Your task to perform on an android device: Go to Reddit.com Image 0: 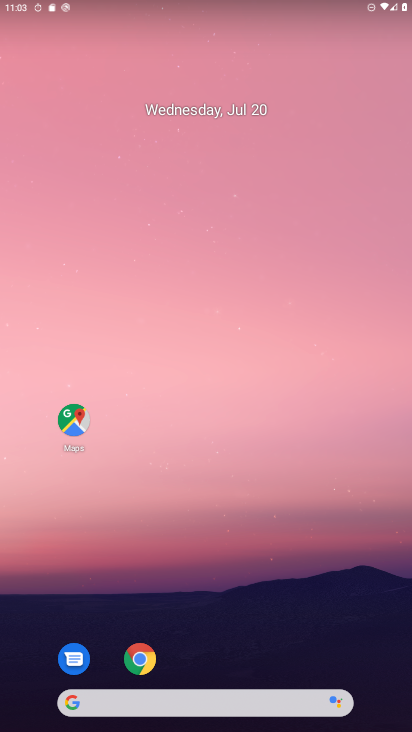
Step 0: drag from (304, 604) to (328, 132)
Your task to perform on an android device: Go to Reddit.com Image 1: 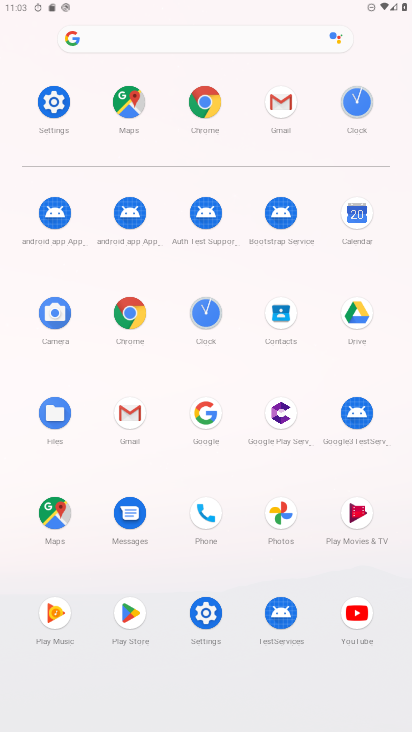
Step 1: click (204, 101)
Your task to perform on an android device: Go to Reddit.com Image 2: 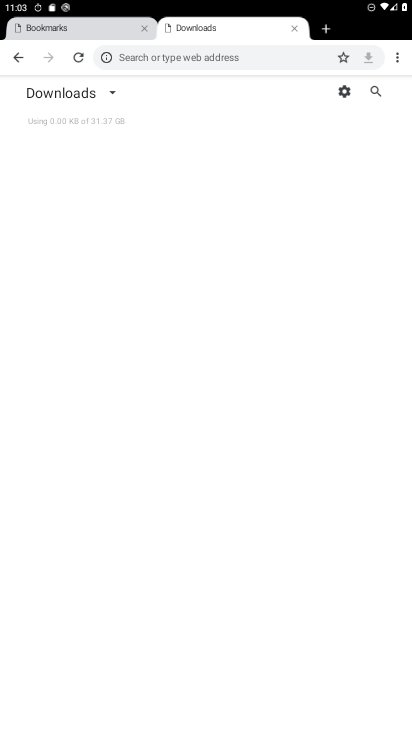
Step 2: click (252, 61)
Your task to perform on an android device: Go to Reddit.com Image 3: 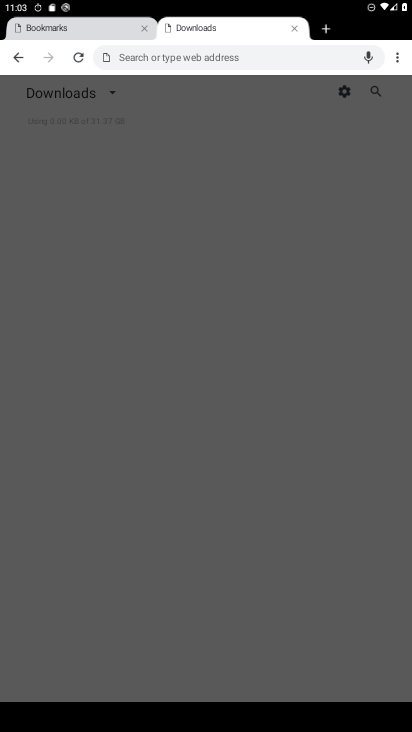
Step 3: type "reddit.com"
Your task to perform on an android device: Go to Reddit.com Image 4: 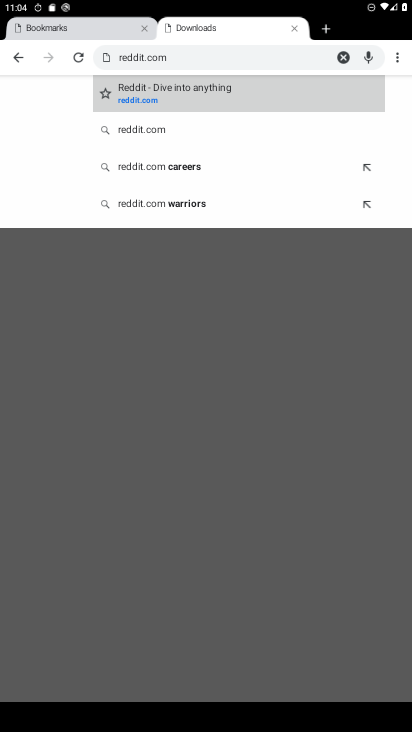
Step 4: click (146, 95)
Your task to perform on an android device: Go to Reddit.com Image 5: 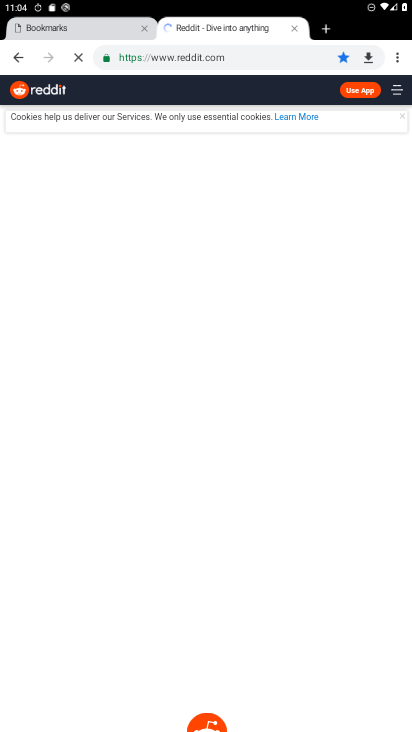
Step 5: task complete